Your task to perform on an android device: Open calendar and show me the first week of next month Image 0: 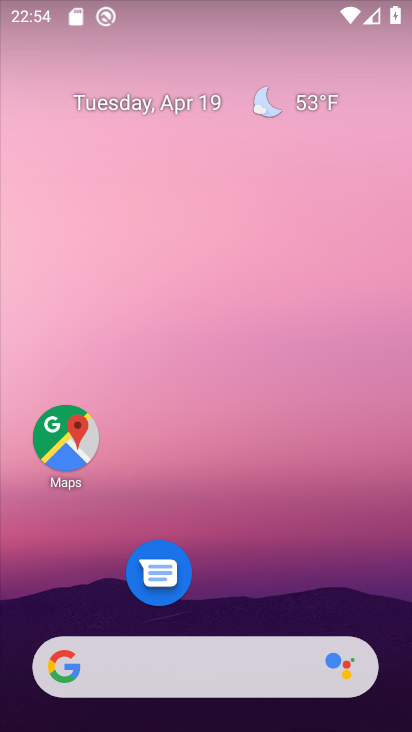
Step 0: drag from (242, 587) to (285, 142)
Your task to perform on an android device: Open calendar and show me the first week of next month Image 1: 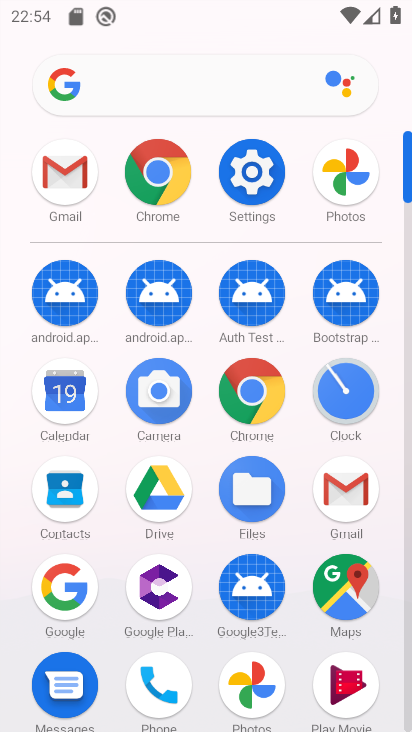
Step 1: click (65, 386)
Your task to perform on an android device: Open calendar and show me the first week of next month Image 2: 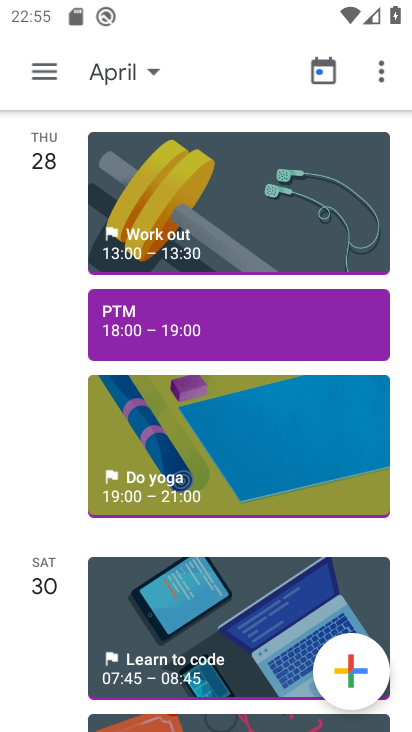
Step 2: click (33, 79)
Your task to perform on an android device: Open calendar and show me the first week of next month Image 3: 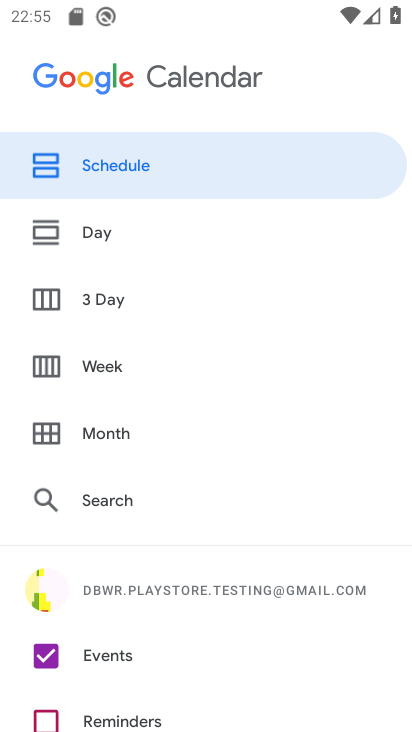
Step 3: click (79, 356)
Your task to perform on an android device: Open calendar and show me the first week of next month Image 4: 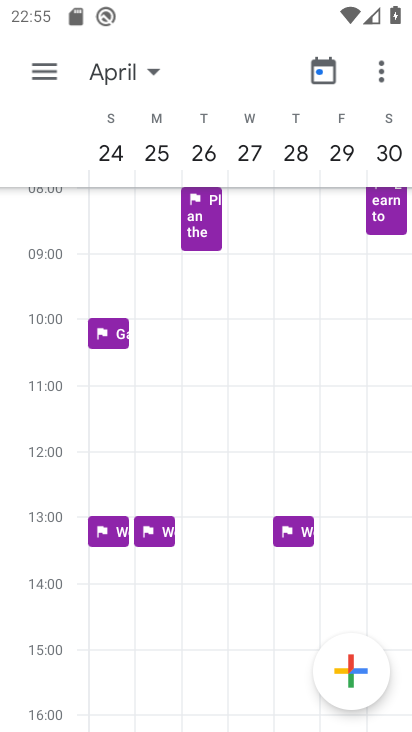
Step 4: drag from (393, 150) to (81, 114)
Your task to perform on an android device: Open calendar and show me the first week of next month Image 5: 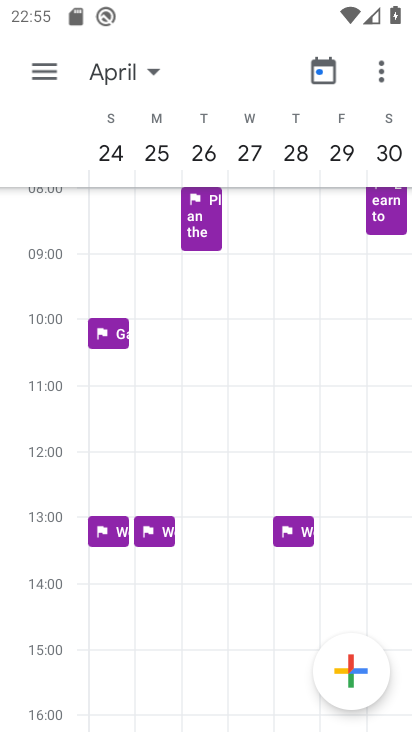
Step 5: drag from (387, 150) to (7, 150)
Your task to perform on an android device: Open calendar and show me the first week of next month Image 6: 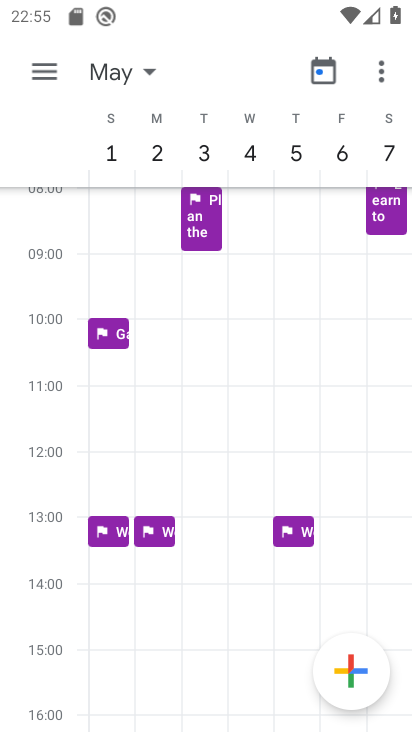
Step 6: click (106, 154)
Your task to perform on an android device: Open calendar and show me the first week of next month Image 7: 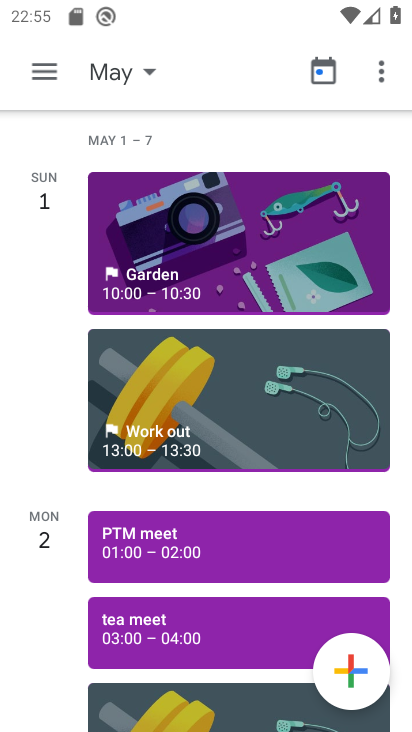
Step 7: task complete